Your task to perform on an android device: turn smart compose on in the gmail app Image 0: 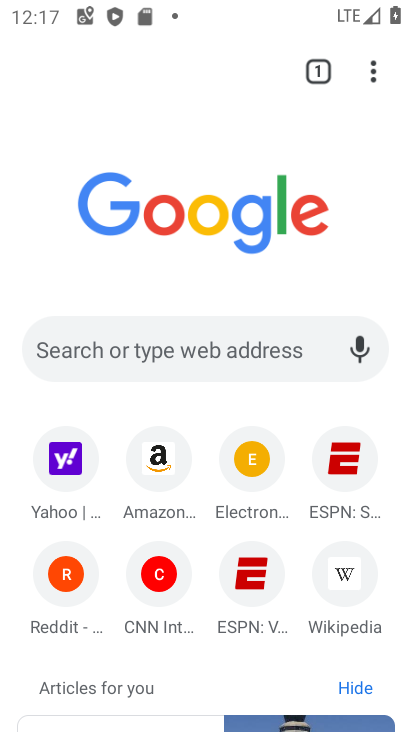
Step 0: press home button
Your task to perform on an android device: turn smart compose on in the gmail app Image 1: 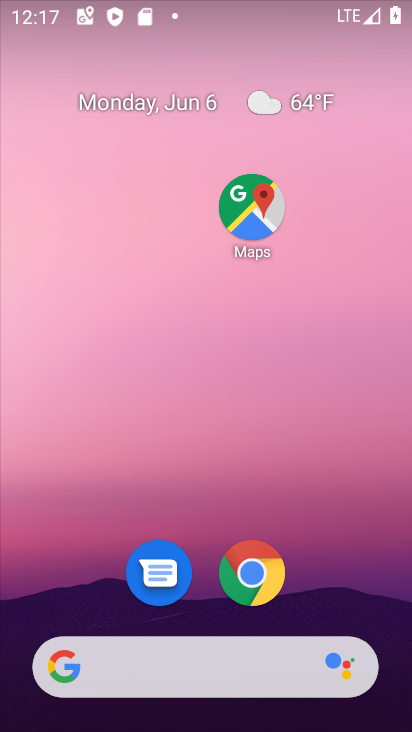
Step 1: drag from (209, 516) to (176, 88)
Your task to perform on an android device: turn smart compose on in the gmail app Image 2: 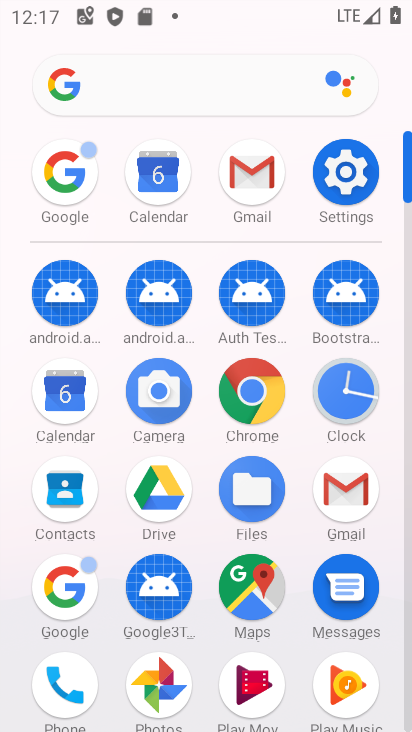
Step 2: click (351, 504)
Your task to perform on an android device: turn smart compose on in the gmail app Image 3: 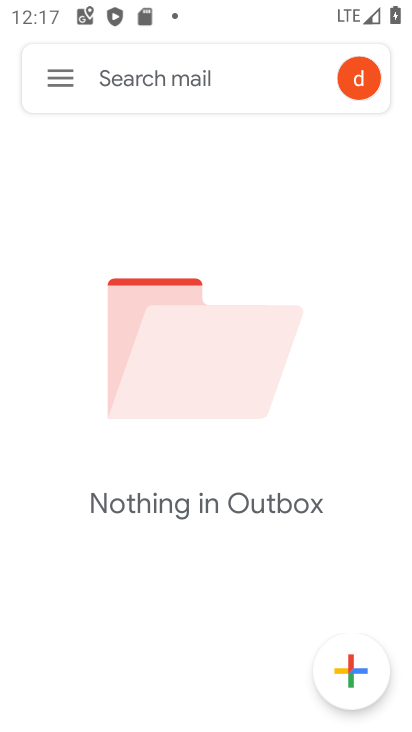
Step 3: click (47, 72)
Your task to perform on an android device: turn smart compose on in the gmail app Image 4: 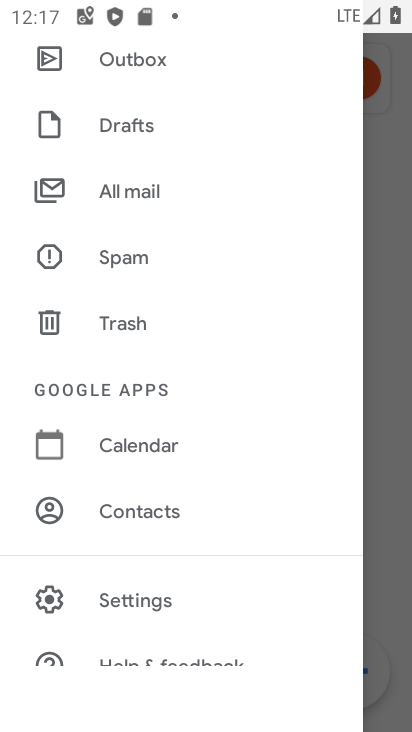
Step 4: click (155, 607)
Your task to perform on an android device: turn smart compose on in the gmail app Image 5: 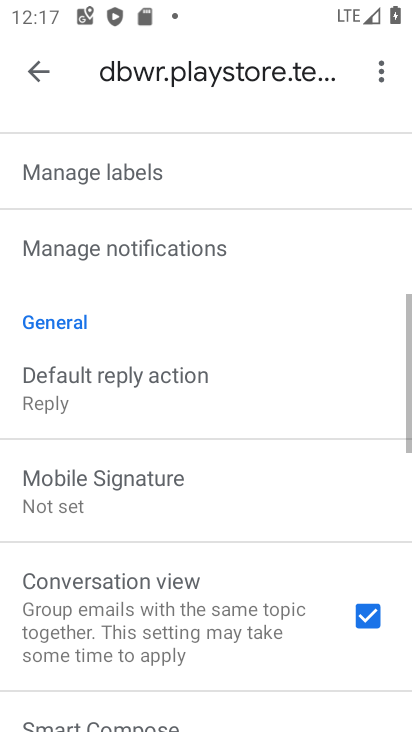
Step 5: task complete